Your task to perform on an android device: add a contact in the contacts app Image 0: 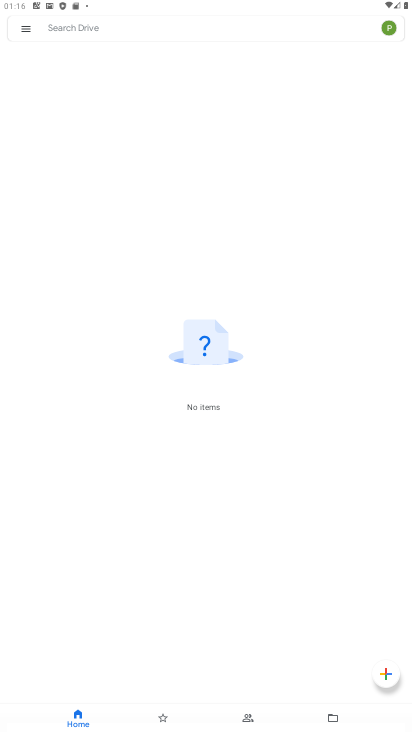
Step 0: press home button
Your task to perform on an android device: add a contact in the contacts app Image 1: 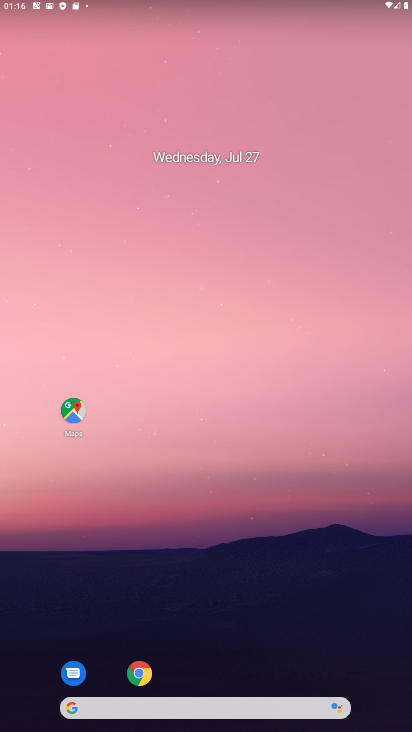
Step 1: drag from (244, 653) to (254, 320)
Your task to perform on an android device: add a contact in the contacts app Image 2: 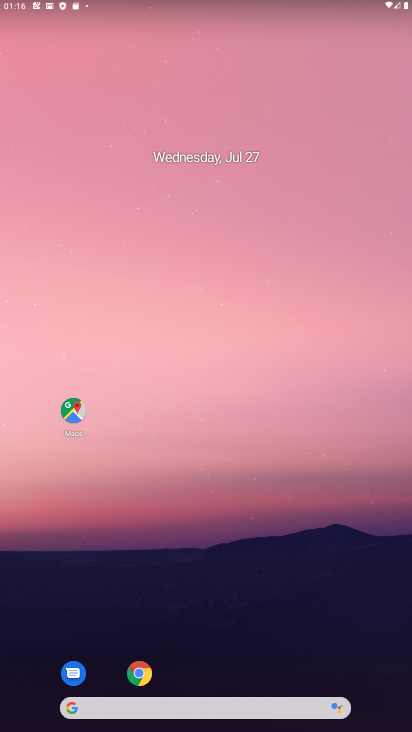
Step 2: drag from (233, 670) to (235, 328)
Your task to perform on an android device: add a contact in the contacts app Image 3: 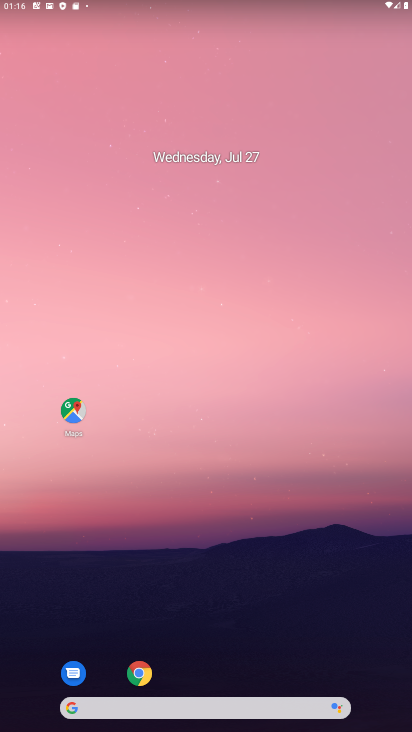
Step 3: drag from (240, 647) to (358, 49)
Your task to perform on an android device: add a contact in the contacts app Image 4: 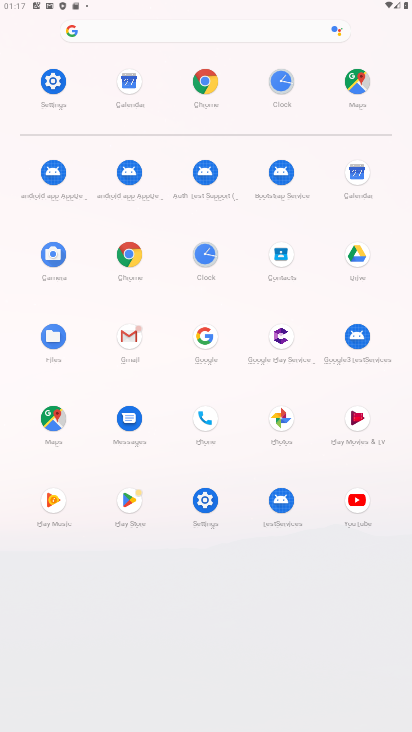
Step 4: click (207, 421)
Your task to perform on an android device: add a contact in the contacts app Image 5: 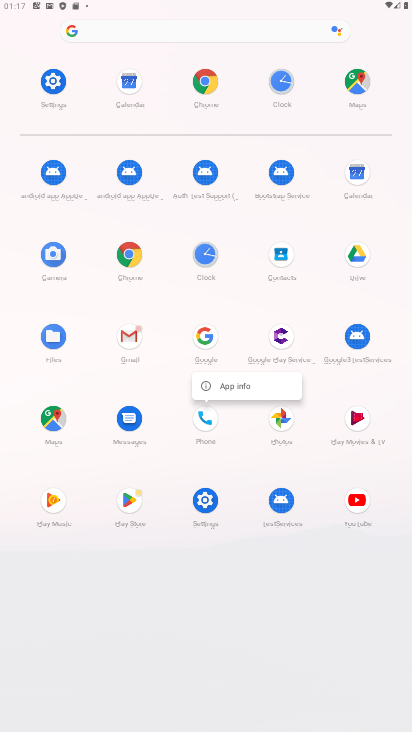
Step 5: click (207, 421)
Your task to perform on an android device: add a contact in the contacts app Image 6: 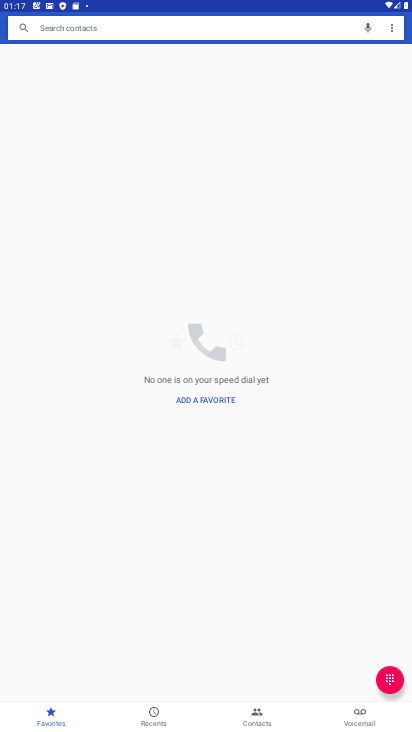
Step 6: click (204, 397)
Your task to perform on an android device: add a contact in the contacts app Image 7: 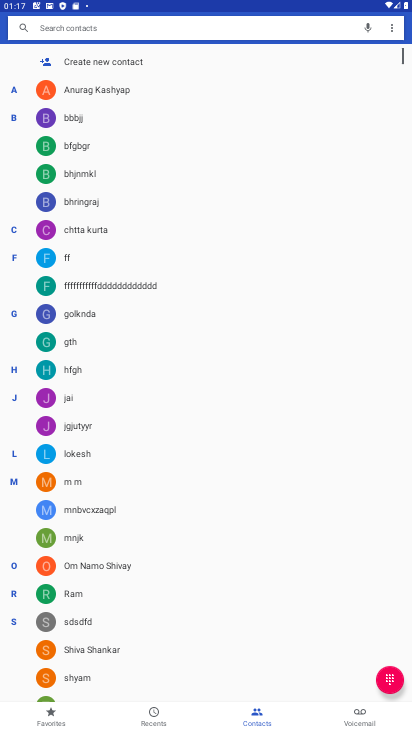
Step 7: click (92, 57)
Your task to perform on an android device: add a contact in the contacts app Image 8: 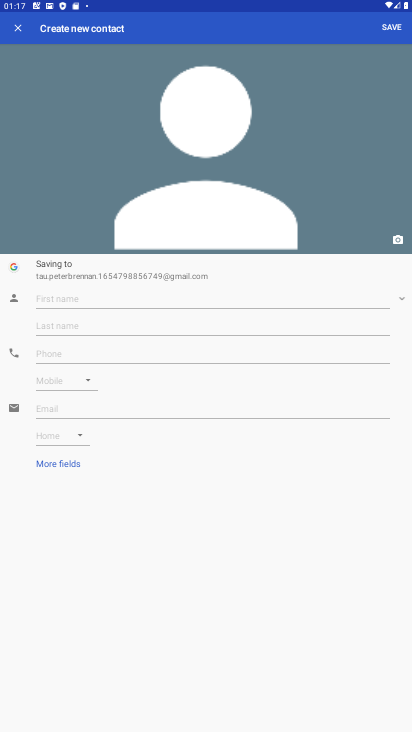
Step 8: click (171, 297)
Your task to perform on an android device: add a contact in the contacts app Image 9: 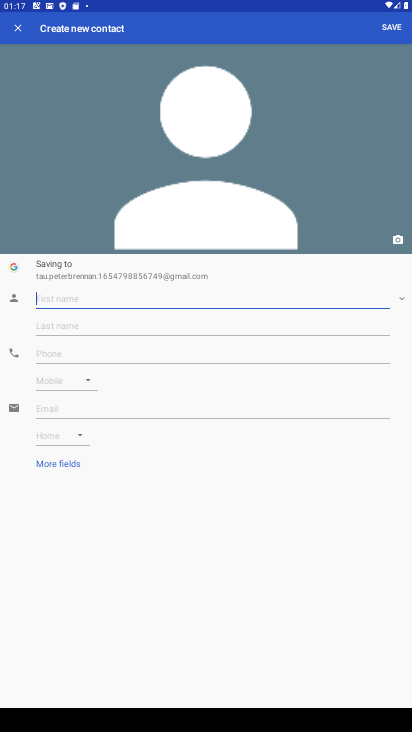
Step 9: type "gggyygygygygyggygygyygy "
Your task to perform on an android device: add a contact in the contacts app Image 10: 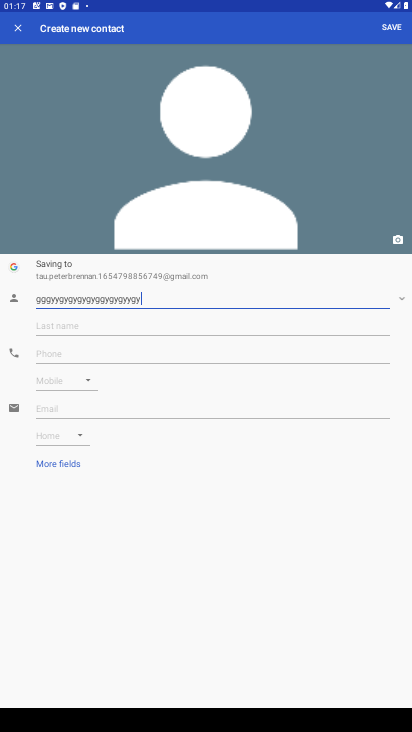
Step 10: click (83, 351)
Your task to perform on an android device: add a contact in the contacts app Image 11: 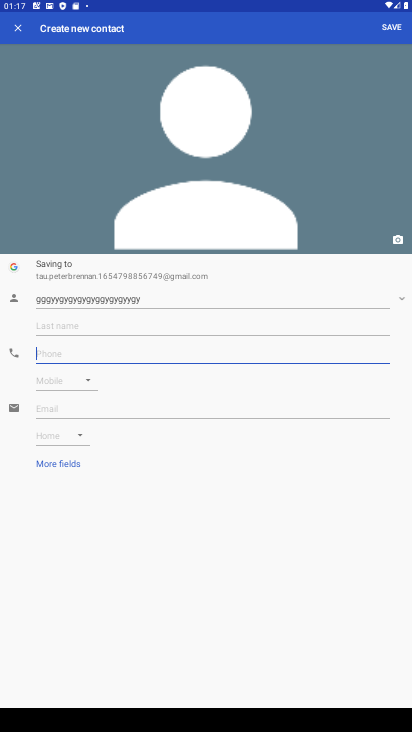
Step 11: type "87887878887887887 "
Your task to perform on an android device: add a contact in the contacts app Image 12: 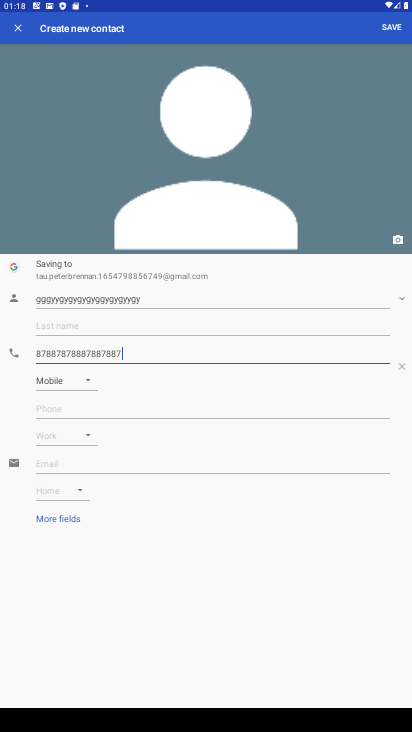
Step 12: click (393, 24)
Your task to perform on an android device: add a contact in the contacts app Image 13: 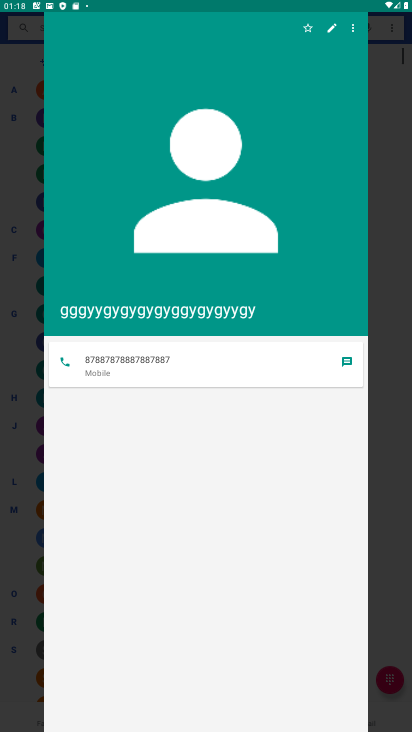
Step 13: task complete